Your task to perform on an android device: Show me recent news Image 0: 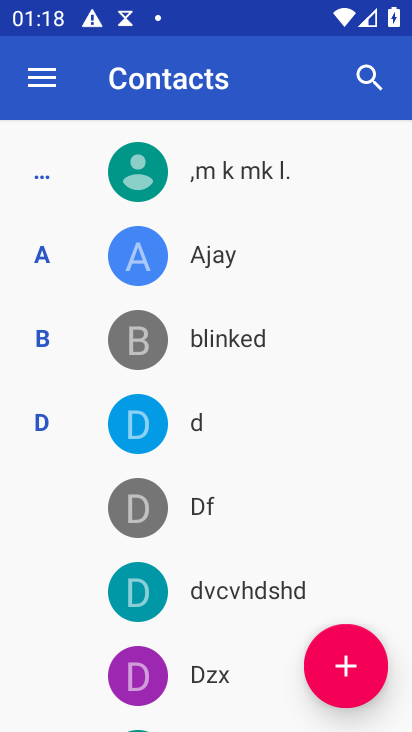
Step 0: press home button
Your task to perform on an android device: Show me recent news Image 1: 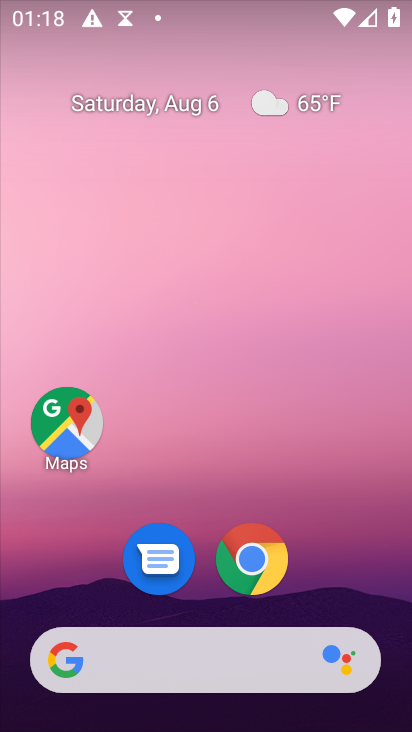
Step 1: drag from (353, 602) to (244, 255)
Your task to perform on an android device: Show me recent news Image 2: 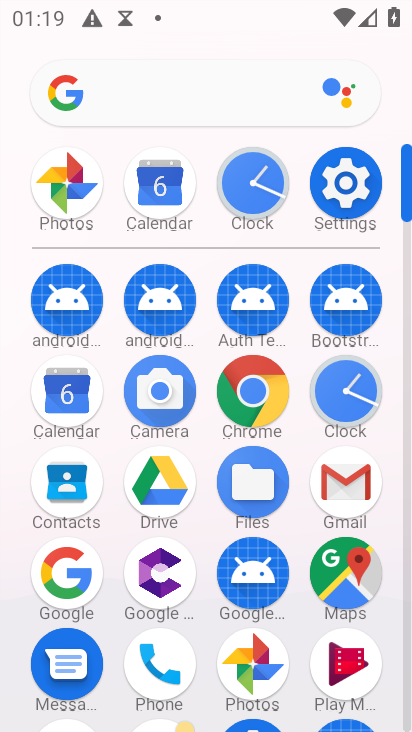
Step 2: click (251, 391)
Your task to perform on an android device: Show me recent news Image 3: 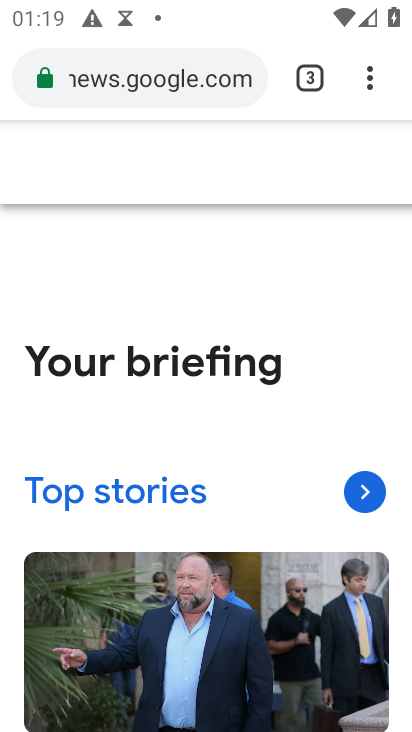
Step 3: click (111, 89)
Your task to perform on an android device: Show me recent news Image 4: 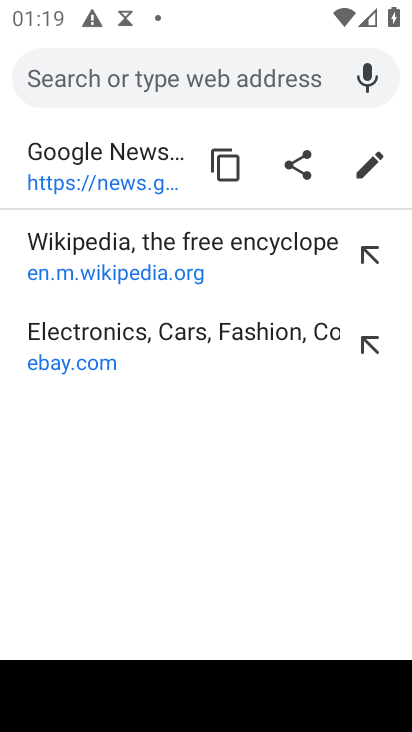
Step 4: click (110, 83)
Your task to perform on an android device: Show me recent news Image 5: 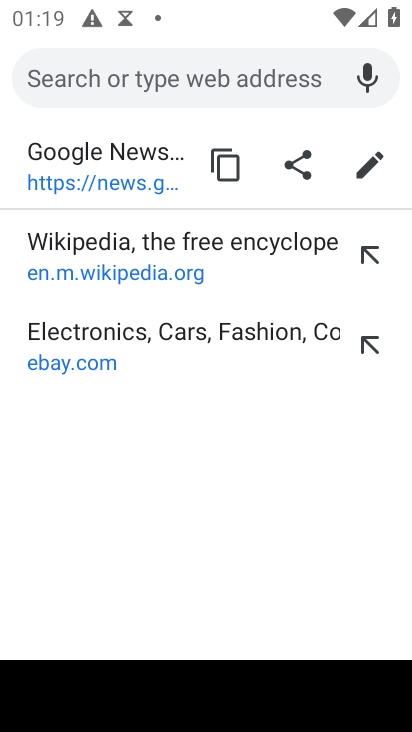
Step 5: type "recent news"
Your task to perform on an android device: Show me recent news Image 6: 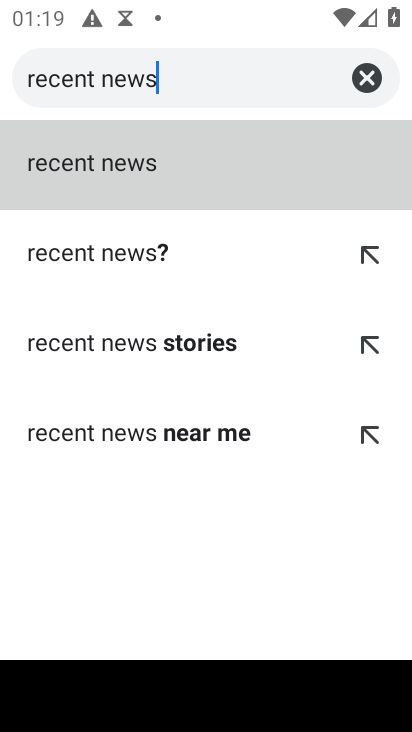
Step 6: click (65, 151)
Your task to perform on an android device: Show me recent news Image 7: 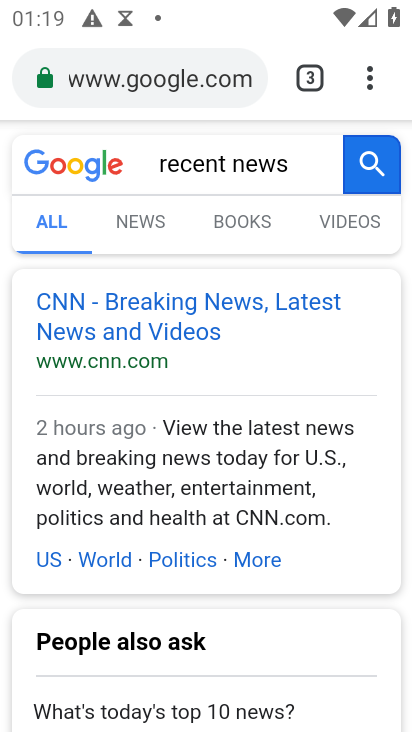
Step 7: click (170, 305)
Your task to perform on an android device: Show me recent news Image 8: 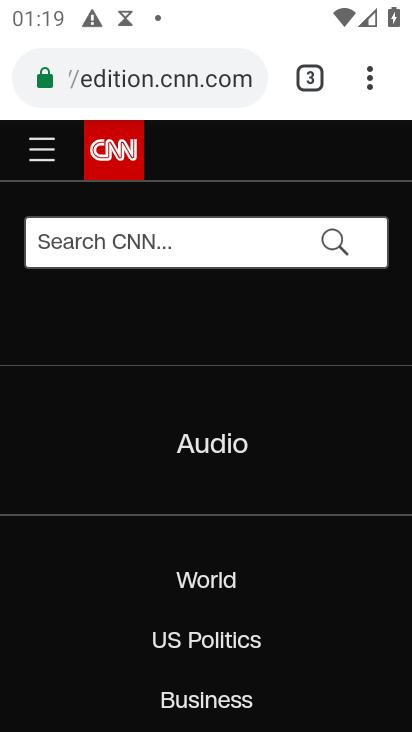
Step 8: task complete